Your task to perform on an android device: open device folders in google photos Image 0: 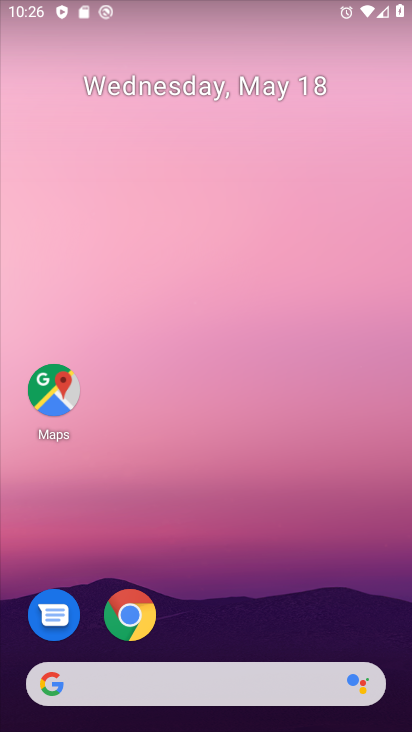
Step 0: drag from (213, 646) to (208, 29)
Your task to perform on an android device: open device folders in google photos Image 1: 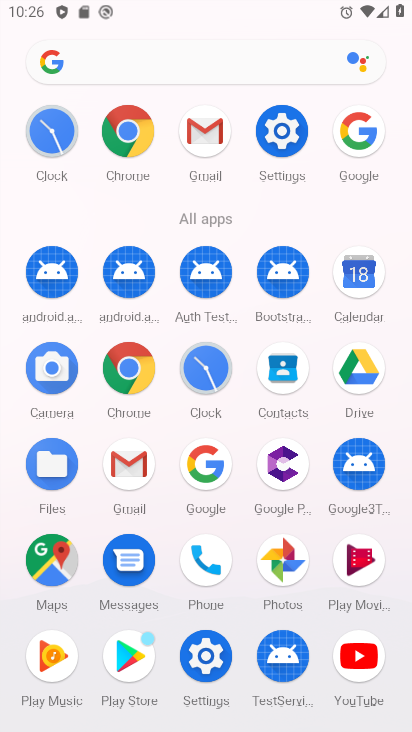
Step 1: click (280, 564)
Your task to perform on an android device: open device folders in google photos Image 2: 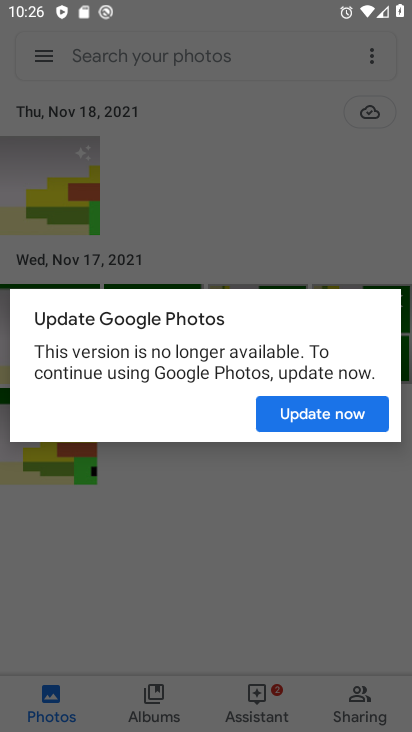
Step 2: click (309, 398)
Your task to perform on an android device: open device folders in google photos Image 3: 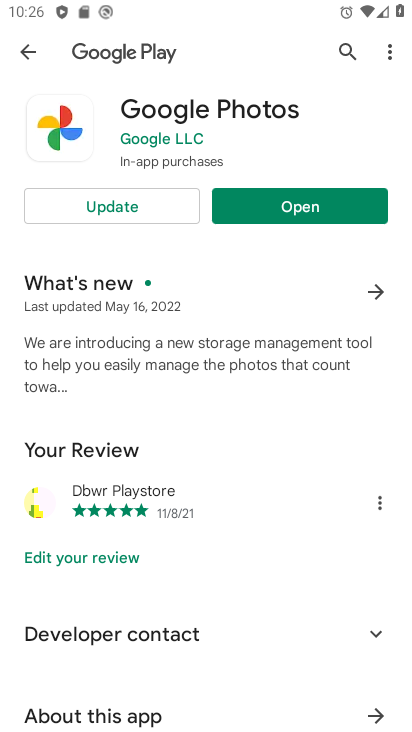
Step 3: click (129, 206)
Your task to perform on an android device: open device folders in google photos Image 4: 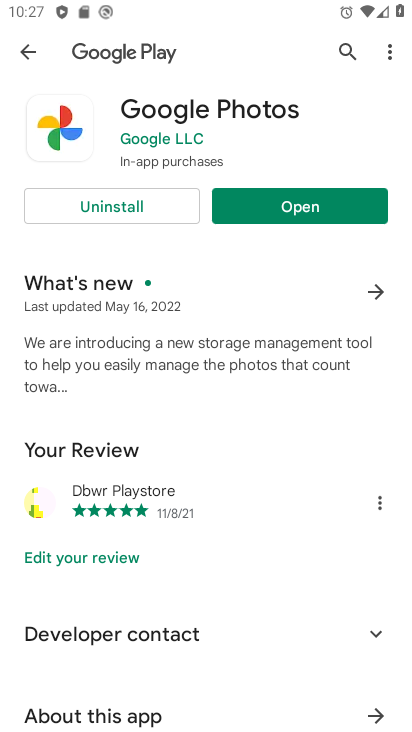
Step 4: click (292, 216)
Your task to perform on an android device: open device folders in google photos Image 5: 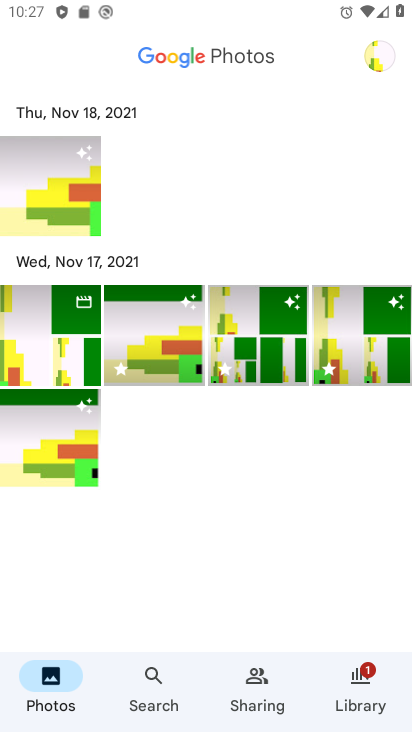
Step 5: click (379, 55)
Your task to perform on an android device: open device folders in google photos Image 6: 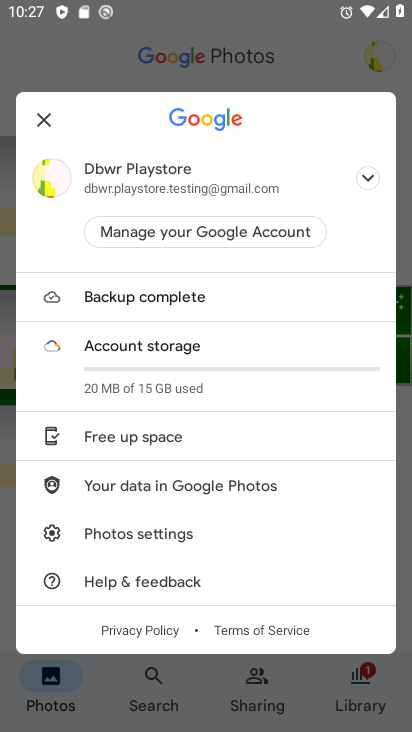
Step 6: task complete